Your task to perform on an android device: toggle data saver in the chrome app Image 0: 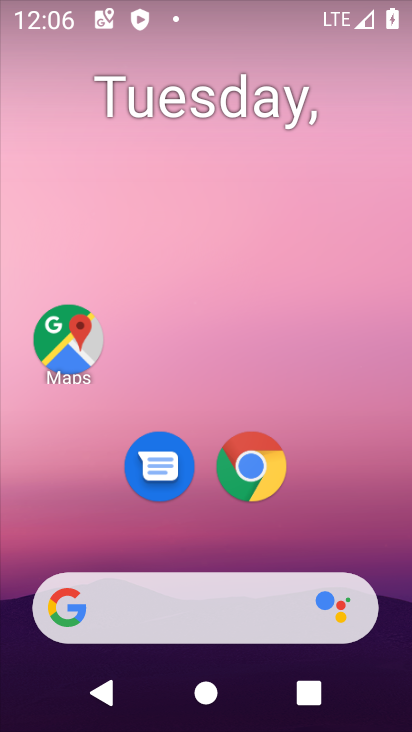
Step 0: drag from (155, 573) to (184, 178)
Your task to perform on an android device: toggle data saver in the chrome app Image 1: 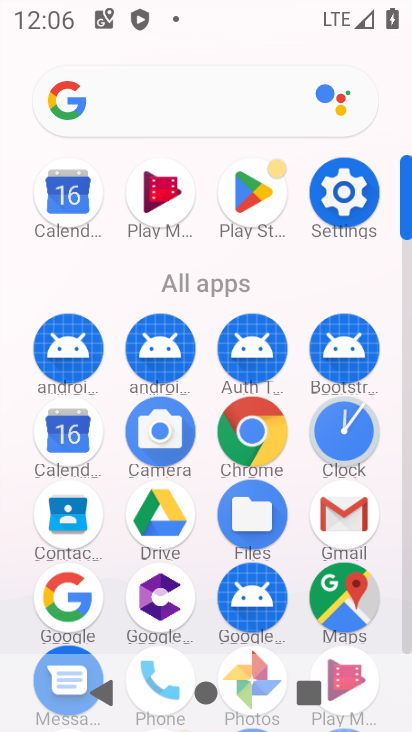
Step 1: click (251, 436)
Your task to perform on an android device: toggle data saver in the chrome app Image 2: 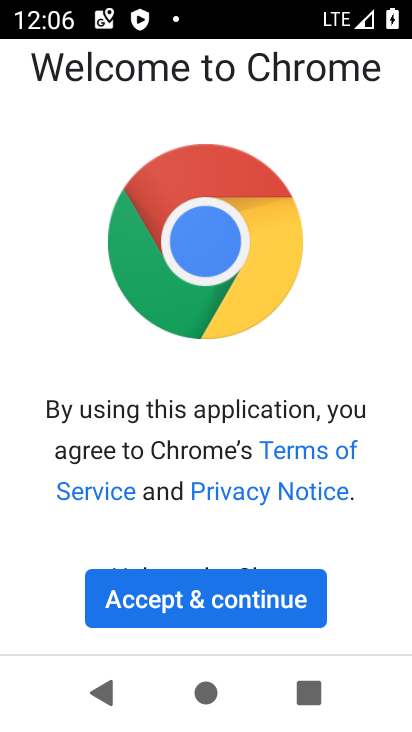
Step 2: click (248, 596)
Your task to perform on an android device: toggle data saver in the chrome app Image 3: 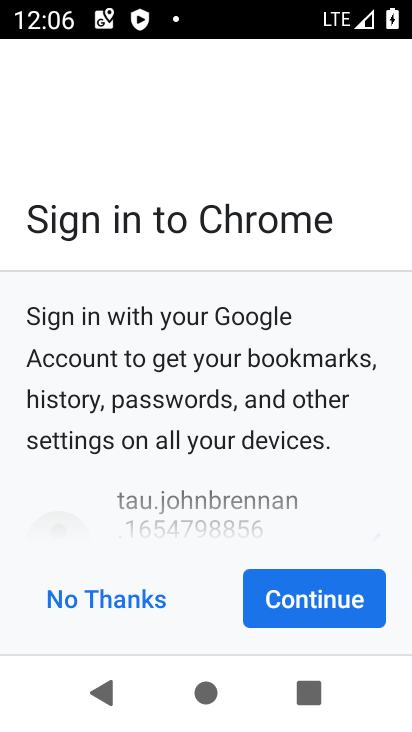
Step 3: click (259, 596)
Your task to perform on an android device: toggle data saver in the chrome app Image 4: 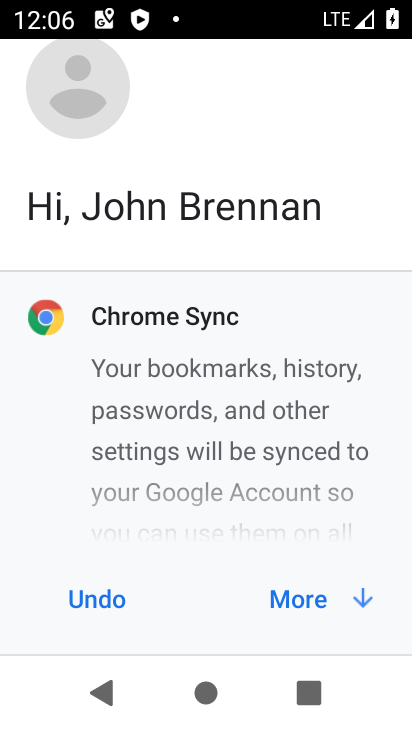
Step 4: click (294, 590)
Your task to perform on an android device: toggle data saver in the chrome app Image 5: 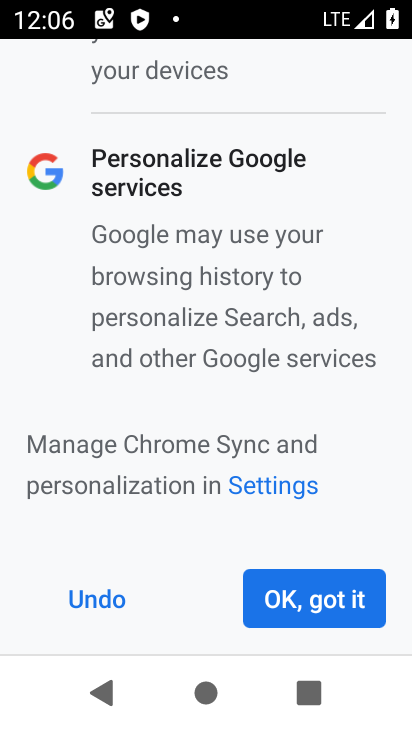
Step 5: click (294, 590)
Your task to perform on an android device: toggle data saver in the chrome app Image 6: 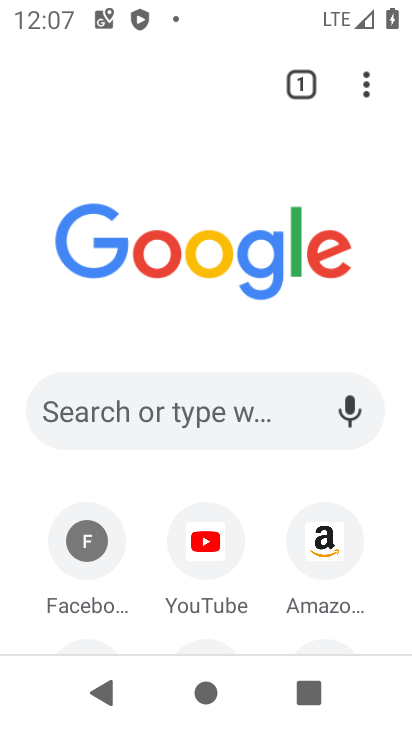
Step 6: click (371, 92)
Your task to perform on an android device: toggle data saver in the chrome app Image 7: 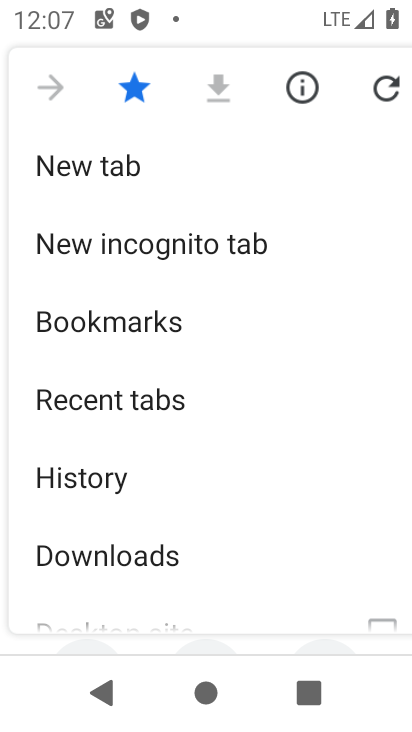
Step 7: drag from (127, 557) to (123, 163)
Your task to perform on an android device: toggle data saver in the chrome app Image 8: 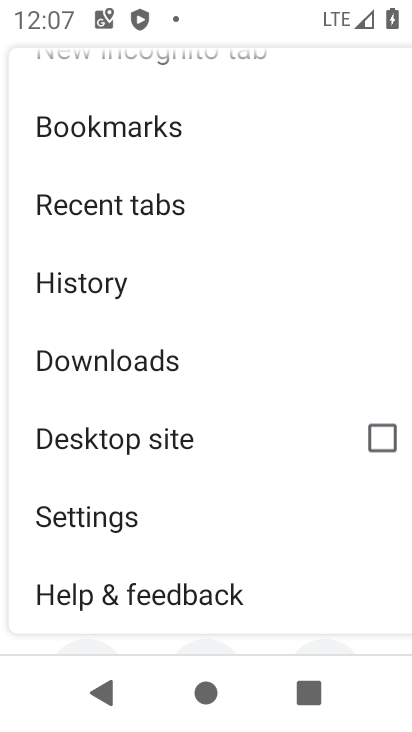
Step 8: click (108, 510)
Your task to perform on an android device: toggle data saver in the chrome app Image 9: 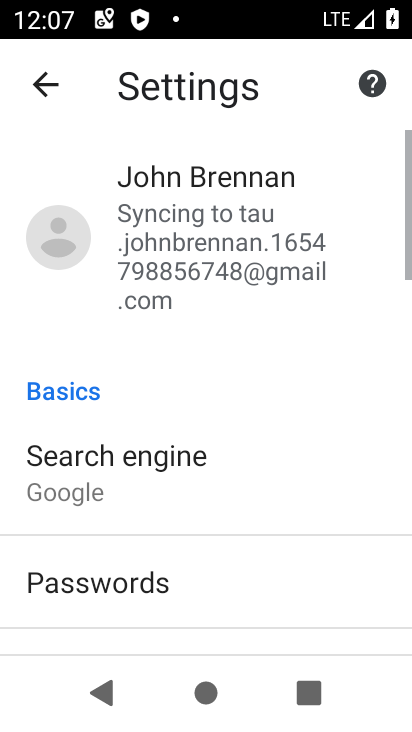
Step 9: drag from (172, 565) to (212, 205)
Your task to perform on an android device: toggle data saver in the chrome app Image 10: 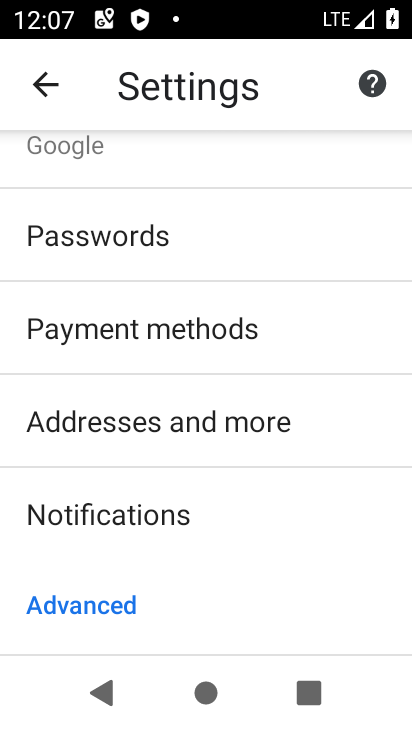
Step 10: drag from (141, 593) to (174, 386)
Your task to perform on an android device: toggle data saver in the chrome app Image 11: 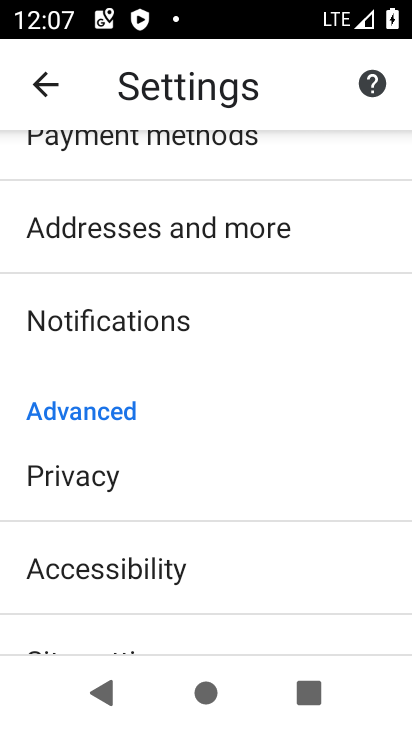
Step 11: drag from (223, 611) to (255, 277)
Your task to perform on an android device: toggle data saver in the chrome app Image 12: 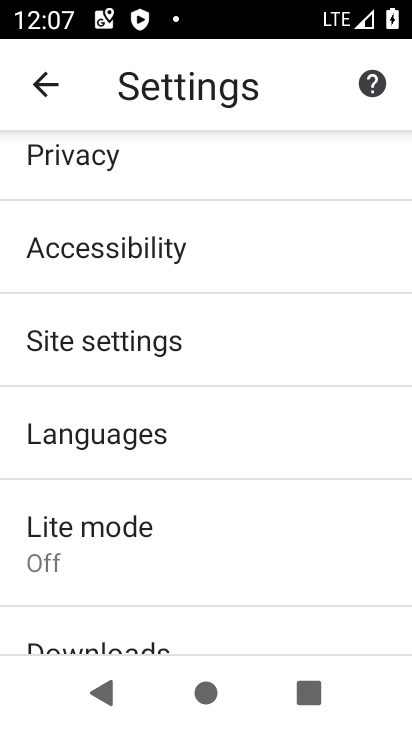
Step 12: click (162, 540)
Your task to perform on an android device: toggle data saver in the chrome app Image 13: 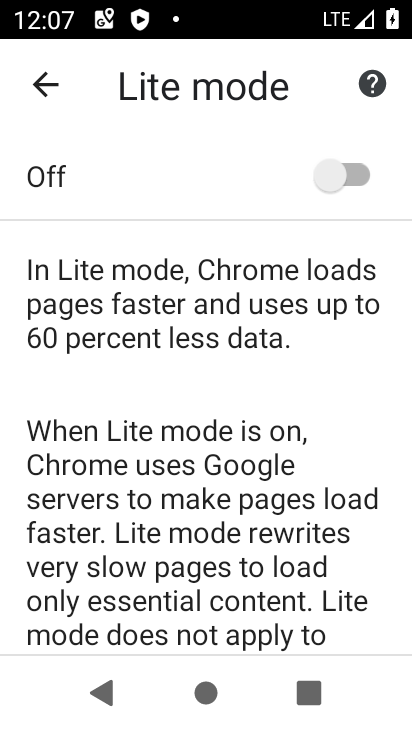
Step 13: click (333, 184)
Your task to perform on an android device: toggle data saver in the chrome app Image 14: 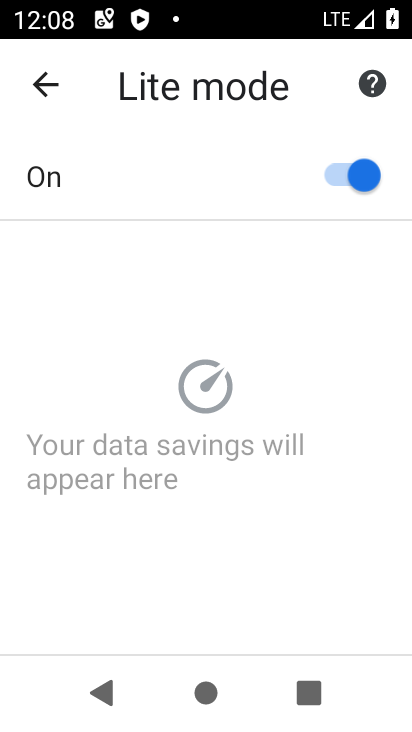
Step 14: task complete